Your task to perform on an android device: What's the weather going to be tomorrow? Image 0: 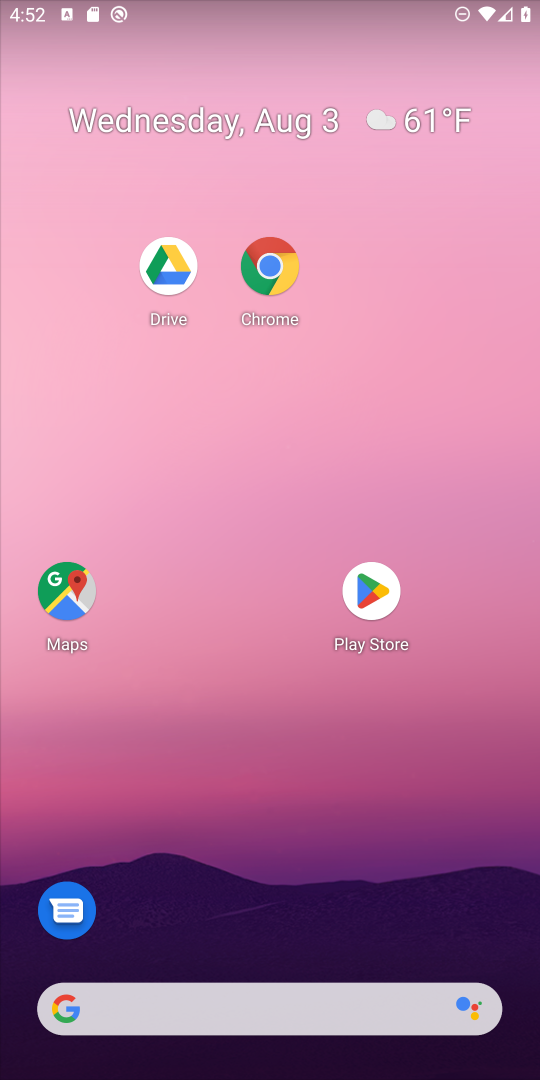
Step 0: drag from (314, 957) to (315, 4)
Your task to perform on an android device: What's the weather going to be tomorrow? Image 1: 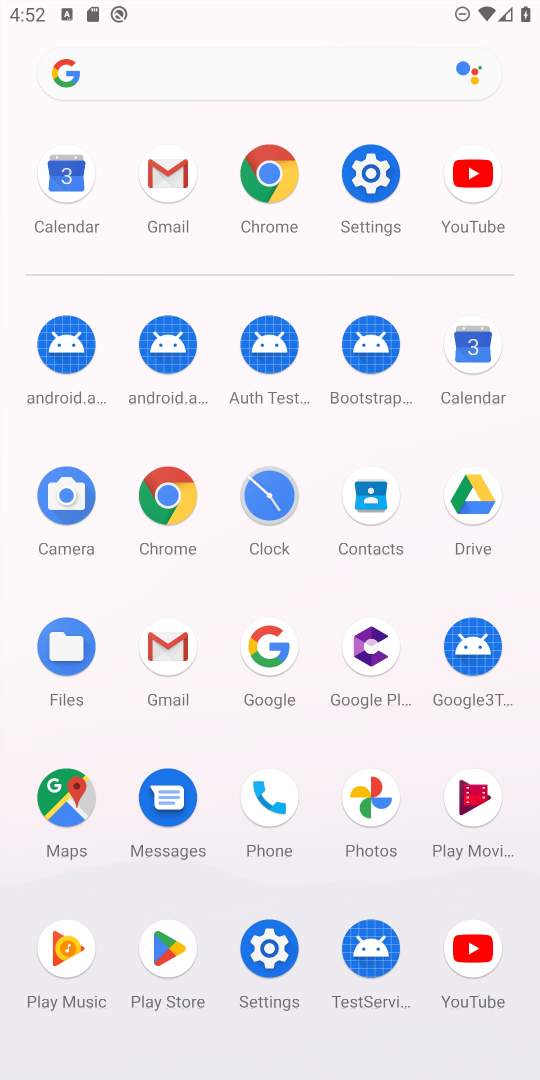
Step 1: press home button
Your task to perform on an android device: What's the weather going to be tomorrow? Image 2: 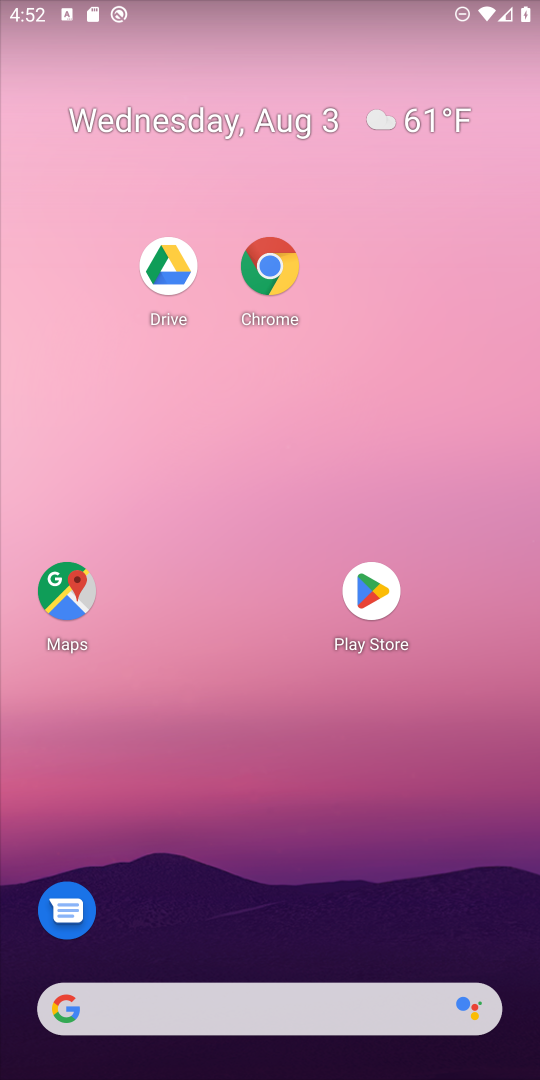
Step 2: drag from (28, 468) to (535, 426)
Your task to perform on an android device: What's the weather going to be tomorrow? Image 3: 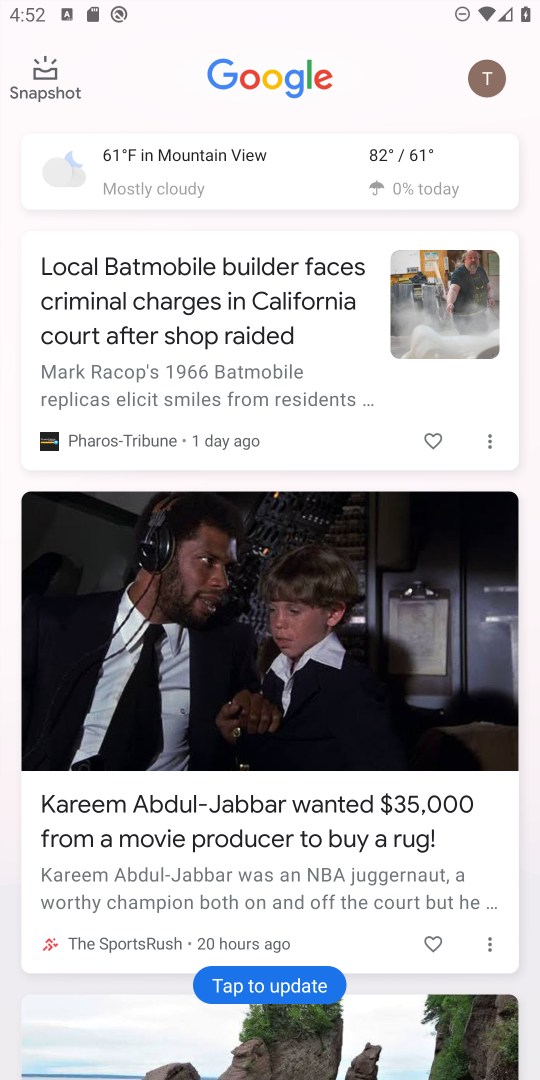
Step 3: click (289, 175)
Your task to perform on an android device: What's the weather going to be tomorrow? Image 4: 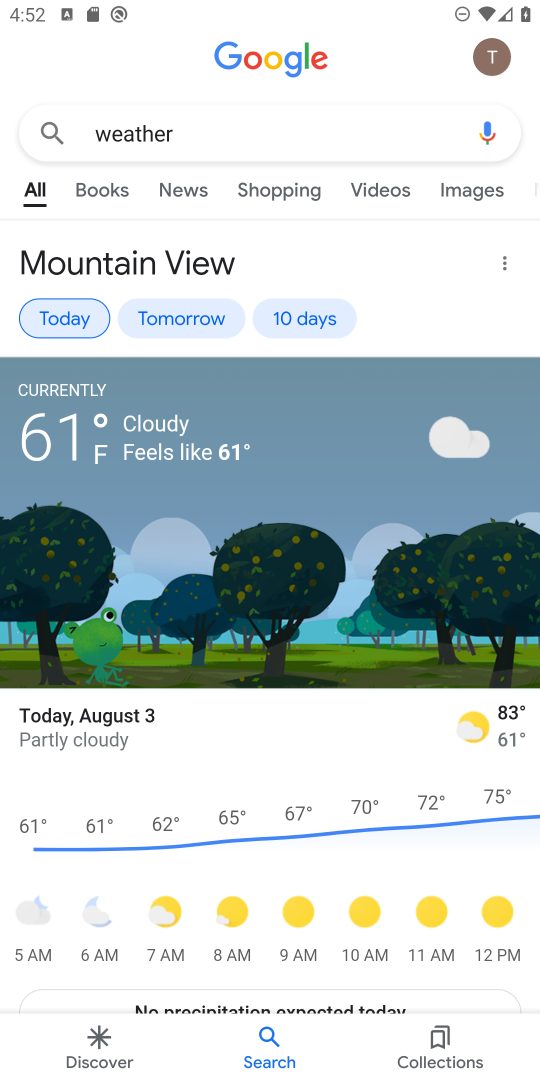
Step 4: click (206, 311)
Your task to perform on an android device: What's the weather going to be tomorrow? Image 5: 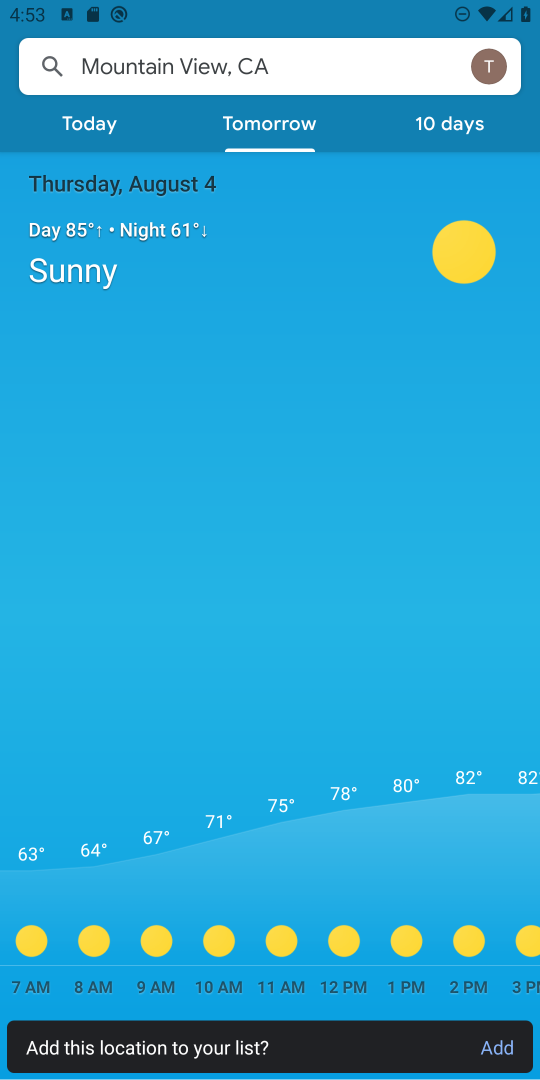
Step 5: task complete